Your task to perform on an android device: Open the calendar and show me this week's events Image 0: 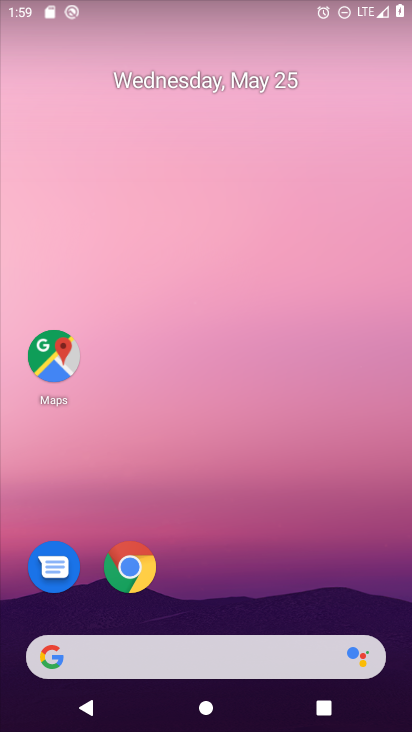
Step 0: drag from (394, 664) to (378, 180)
Your task to perform on an android device: Open the calendar and show me this week's events Image 1: 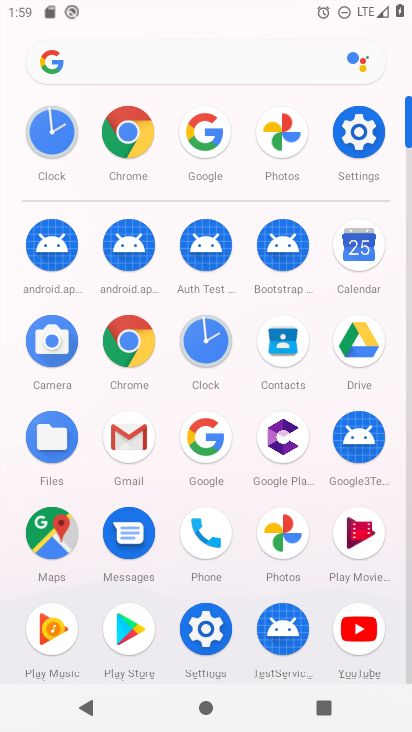
Step 1: click (355, 239)
Your task to perform on an android device: Open the calendar and show me this week's events Image 2: 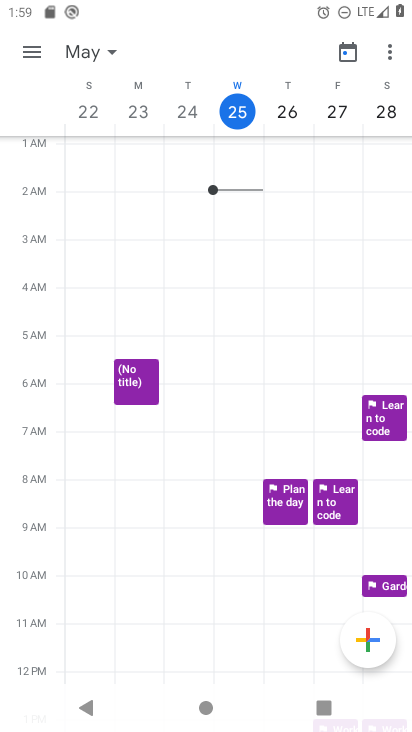
Step 2: click (104, 50)
Your task to perform on an android device: Open the calendar and show me this week's events Image 3: 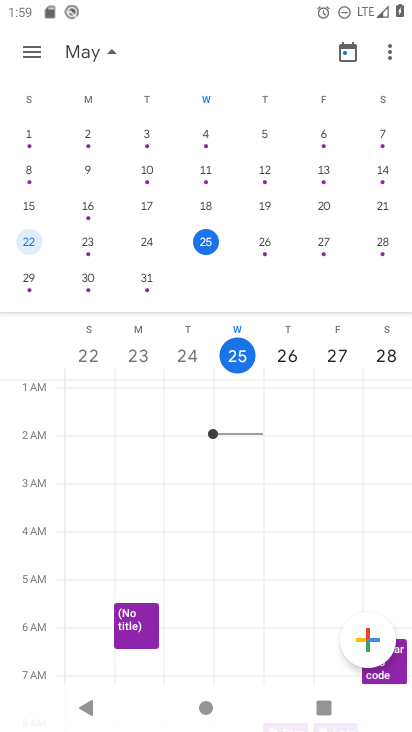
Step 3: click (262, 238)
Your task to perform on an android device: Open the calendar and show me this week's events Image 4: 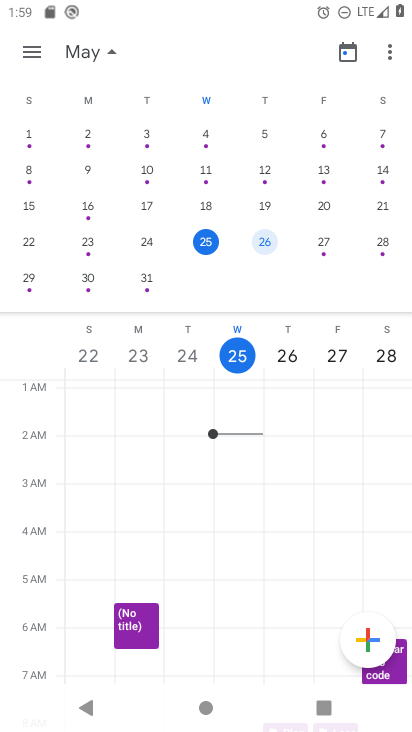
Step 4: click (34, 46)
Your task to perform on an android device: Open the calendar and show me this week's events Image 5: 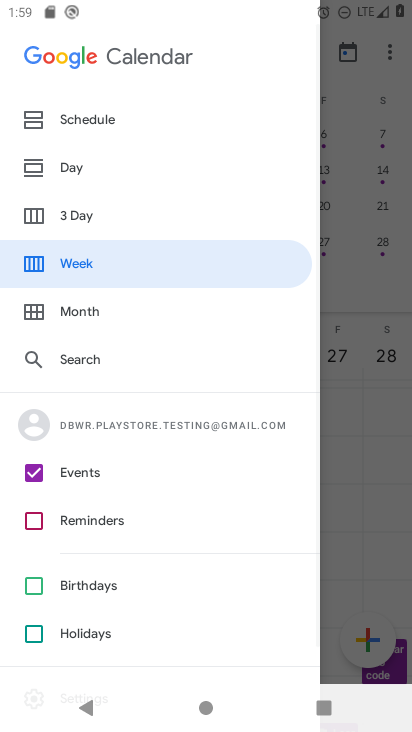
Step 5: click (73, 258)
Your task to perform on an android device: Open the calendar and show me this week's events Image 6: 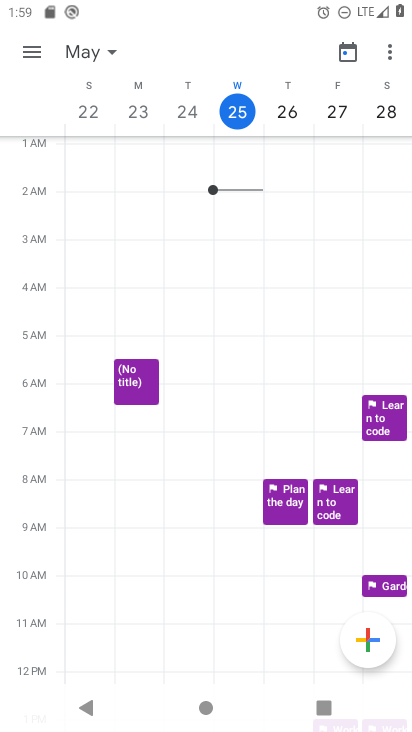
Step 6: task complete